Your task to perform on an android device: Find coffee shops on Maps Image 0: 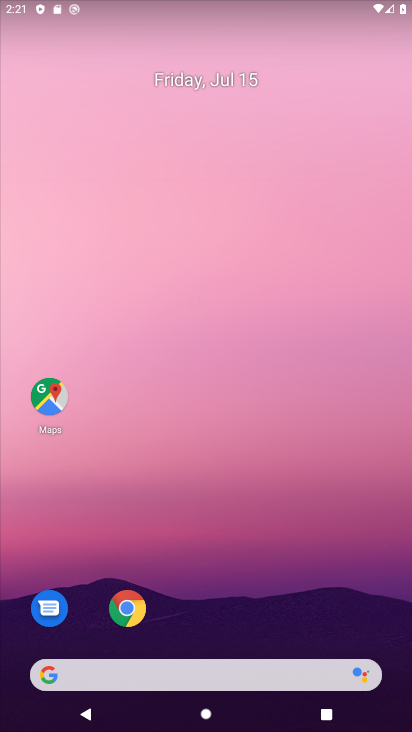
Step 0: click (59, 389)
Your task to perform on an android device: Find coffee shops on Maps Image 1: 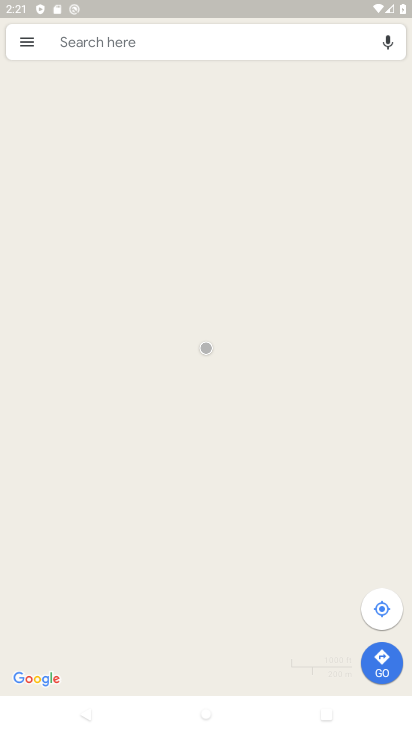
Step 1: click (216, 35)
Your task to perform on an android device: Find coffee shops on Maps Image 2: 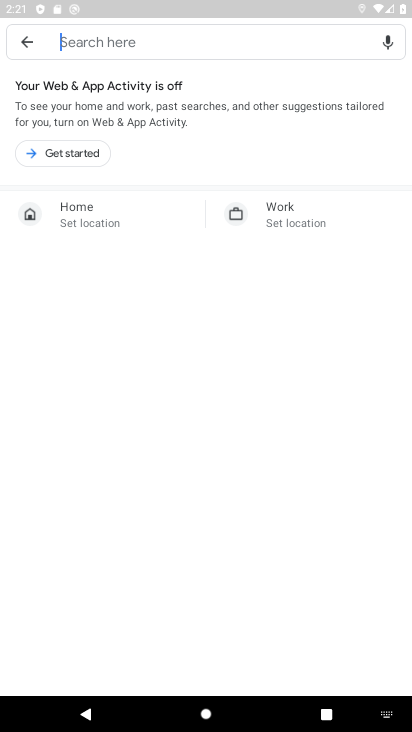
Step 2: type "coffee"
Your task to perform on an android device: Find coffee shops on Maps Image 3: 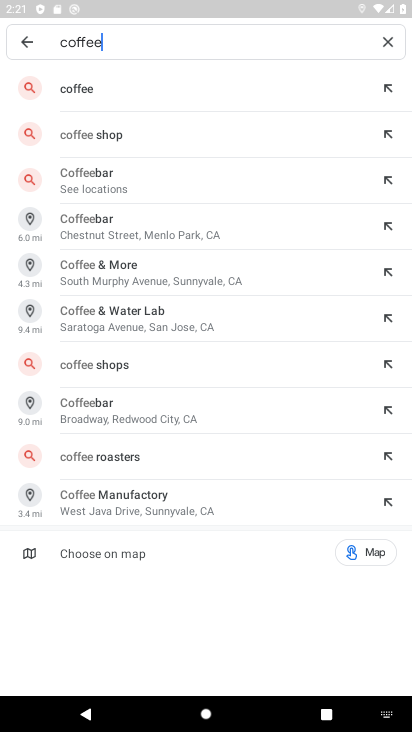
Step 3: click (139, 95)
Your task to perform on an android device: Find coffee shops on Maps Image 4: 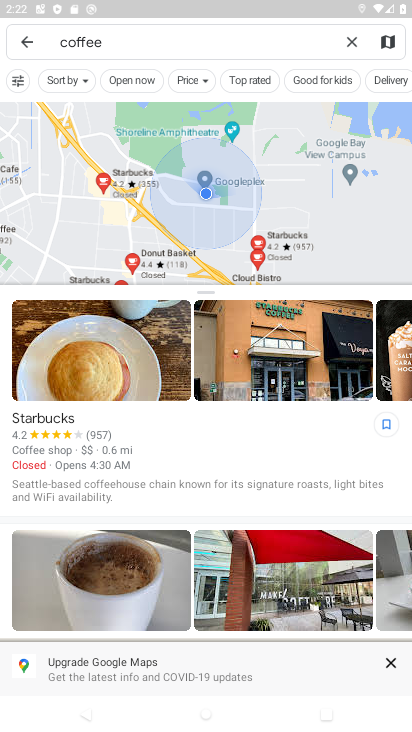
Step 4: task complete